Your task to perform on an android device: Open ESPN.com Image 0: 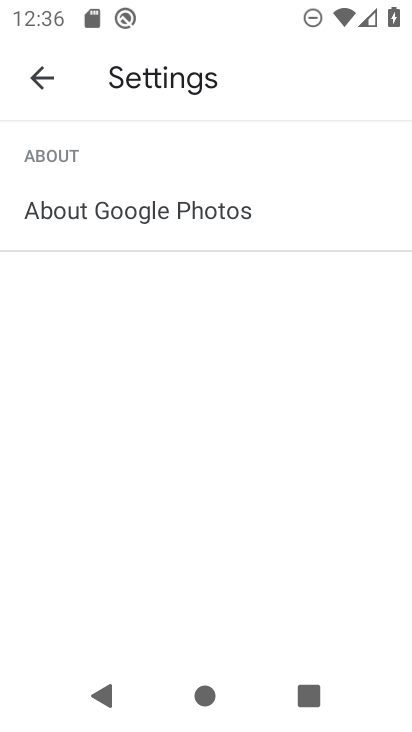
Step 0: press home button
Your task to perform on an android device: Open ESPN.com Image 1: 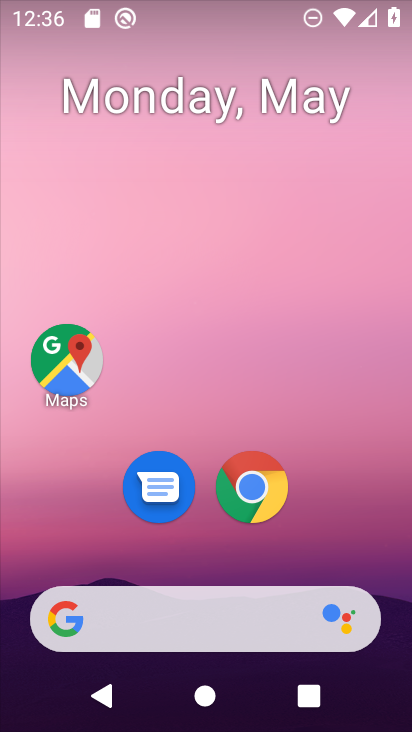
Step 1: click (252, 488)
Your task to perform on an android device: Open ESPN.com Image 2: 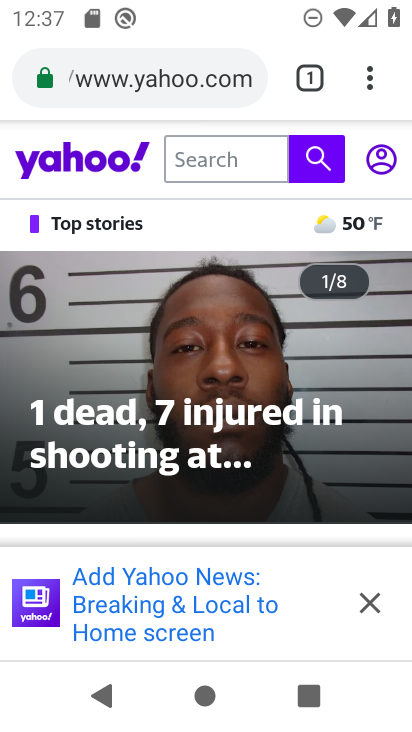
Step 2: click (246, 85)
Your task to perform on an android device: Open ESPN.com Image 3: 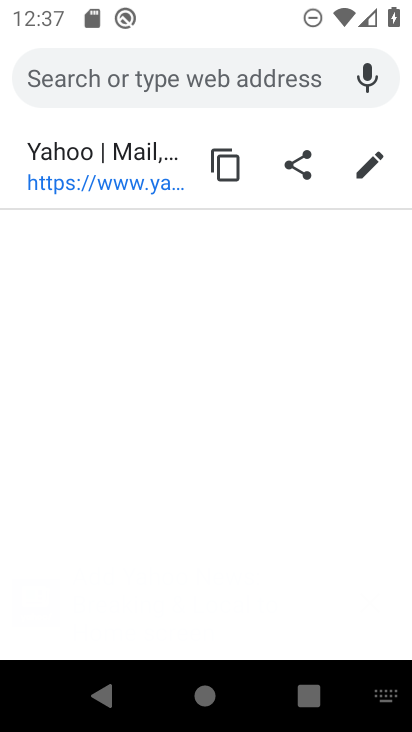
Step 3: type "ESPN.com"
Your task to perform on an android device: Open ESPN.com Image 4: 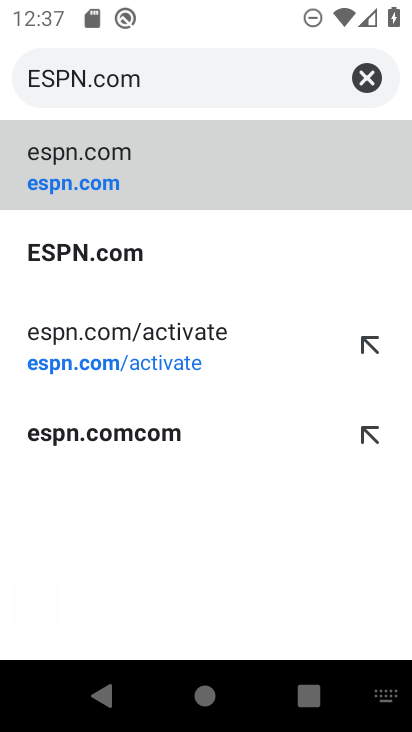
Step 4: click (132, 251)
Your task to perform on an android device: Open ESPN.com Image 5: 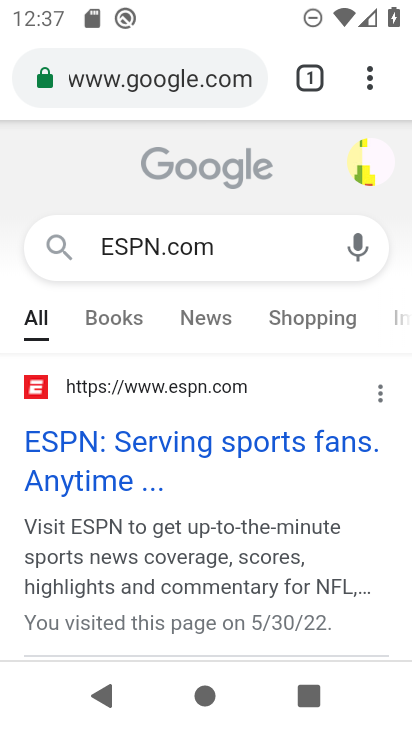
Step 5: click (189, 439)
Your task to perform on an android device: Open ESPN.com Image 6: 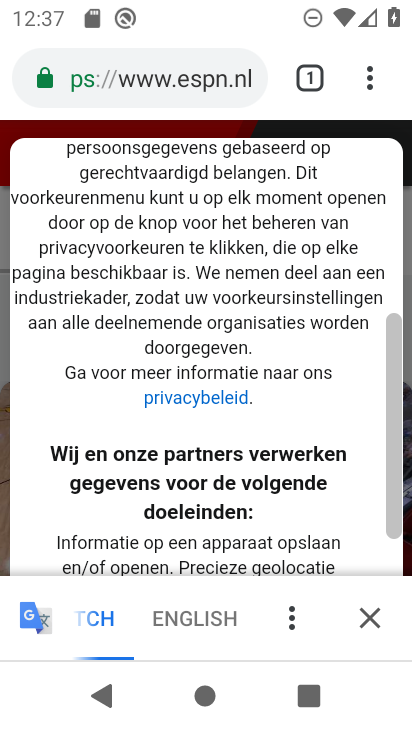
Step 6: task complete